Your task to perform on an android device: turn on wifi Image 0: 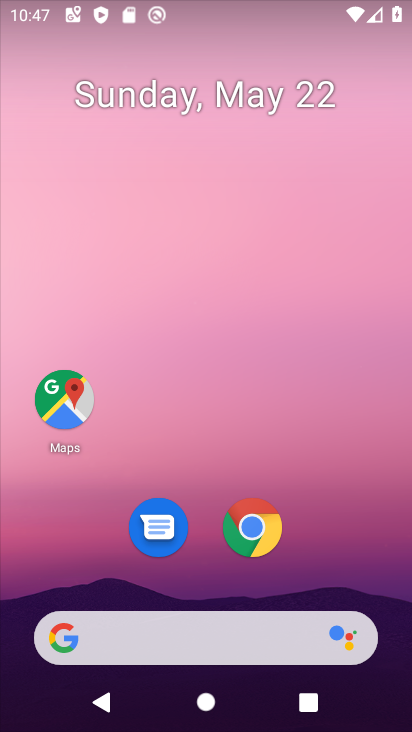
Step 0: click (377, 582)
Your task to perform on an android device: turn on wifi Image 1: 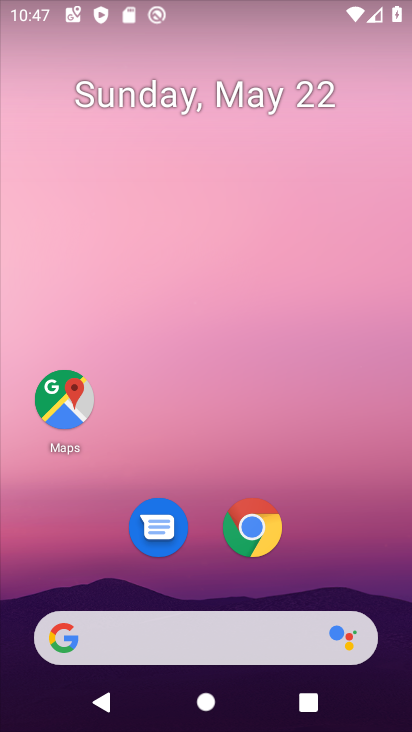
Step 1: drag from (377, 582) to (289, 54)
Your task to perform on an android device: turn on wifi Image 2: 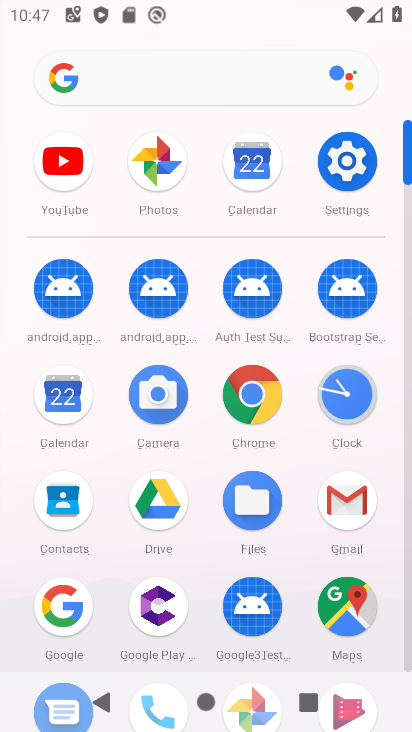
Step 2: click (347, 173)
Your task to perform on an android device: turn on wifi Image 3: 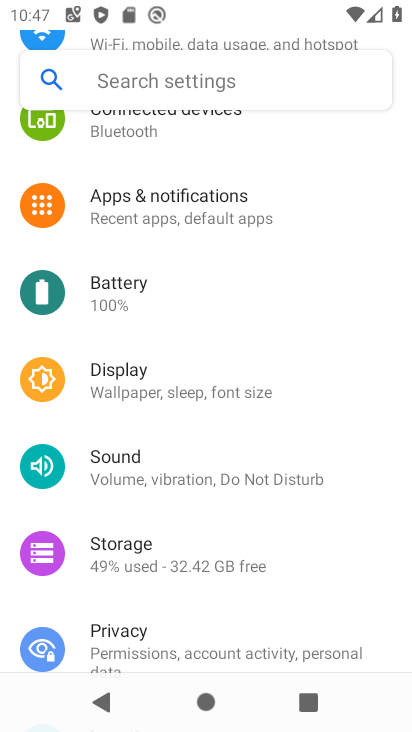
Step 3: drag from (224, 190) to (343, 655)
Your task to perform on an android device: turn on wifi Image 4: 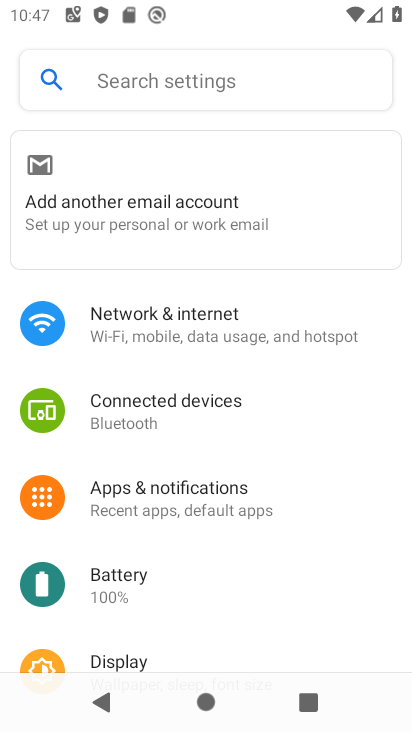
Step 4: click (250, 320)
Your task to perform on an android device: turn on wifi Image 5: 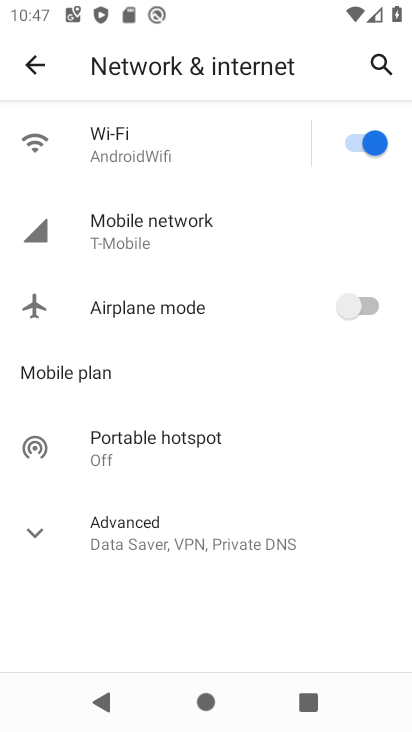
Step 5: click (347, 148)
Your task to perform on an android device: turn on wifi Image 6: 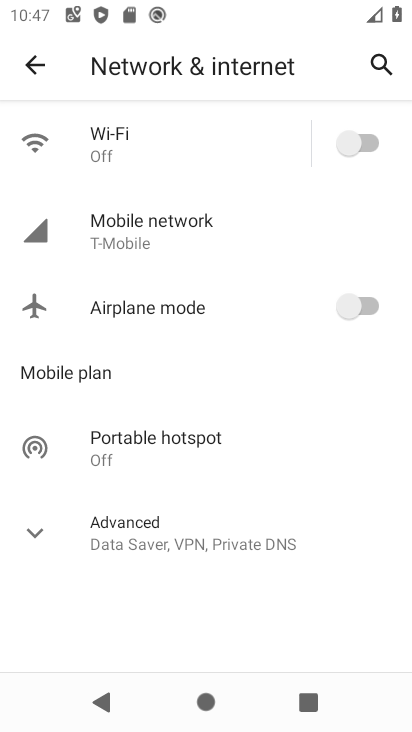
Step 6: task complete